Your task to perform on an android device: Open location settings Image 0: 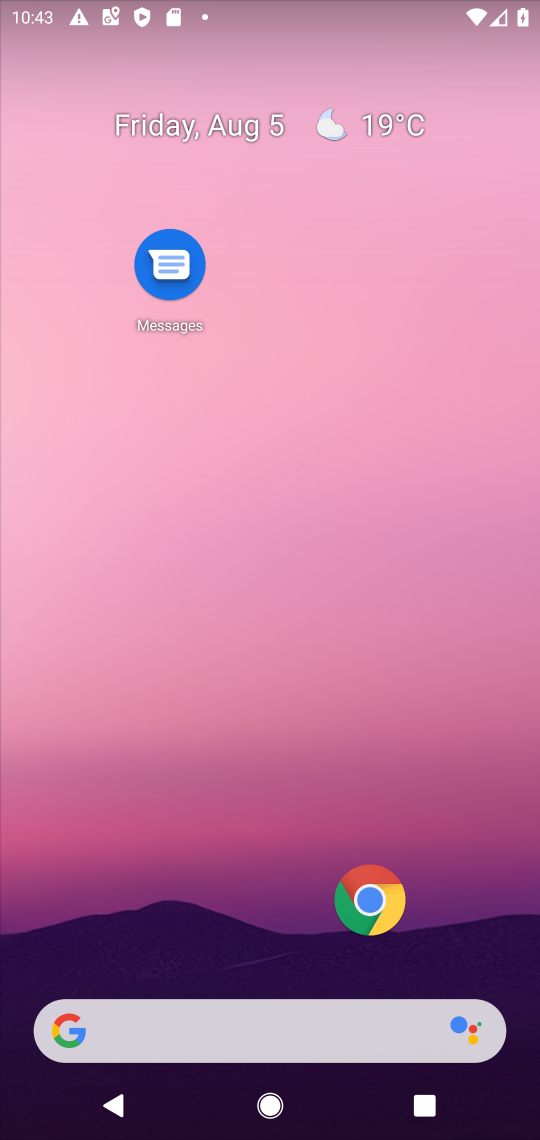
Step 0: press home button
Your task to perform on an android device: Open location settings Image 1: 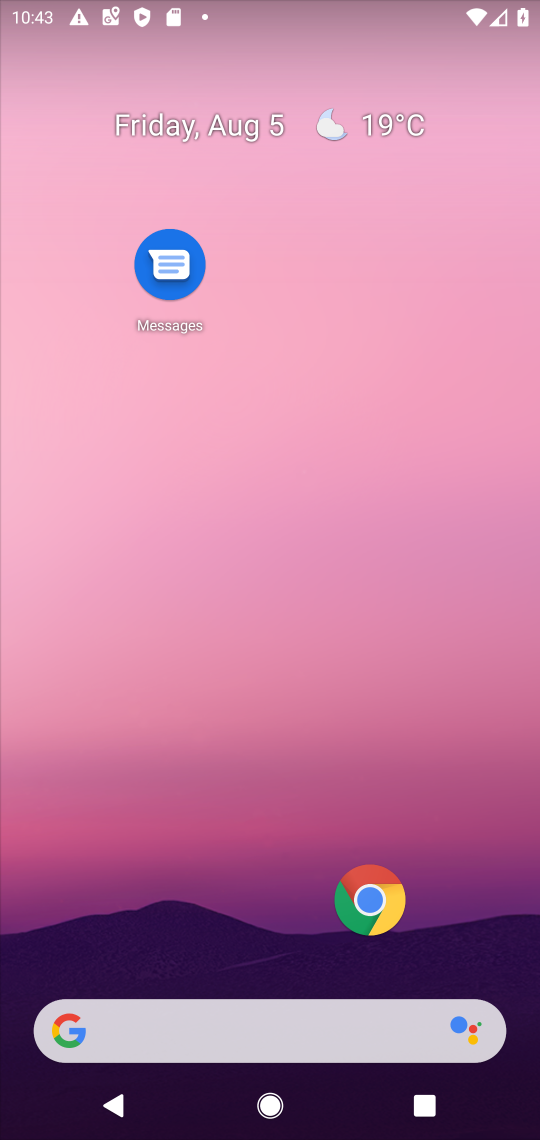
Step 1: drag from (173, 920) to (417, 18)
Your task to perform on an android device: Open location settings Image 2: 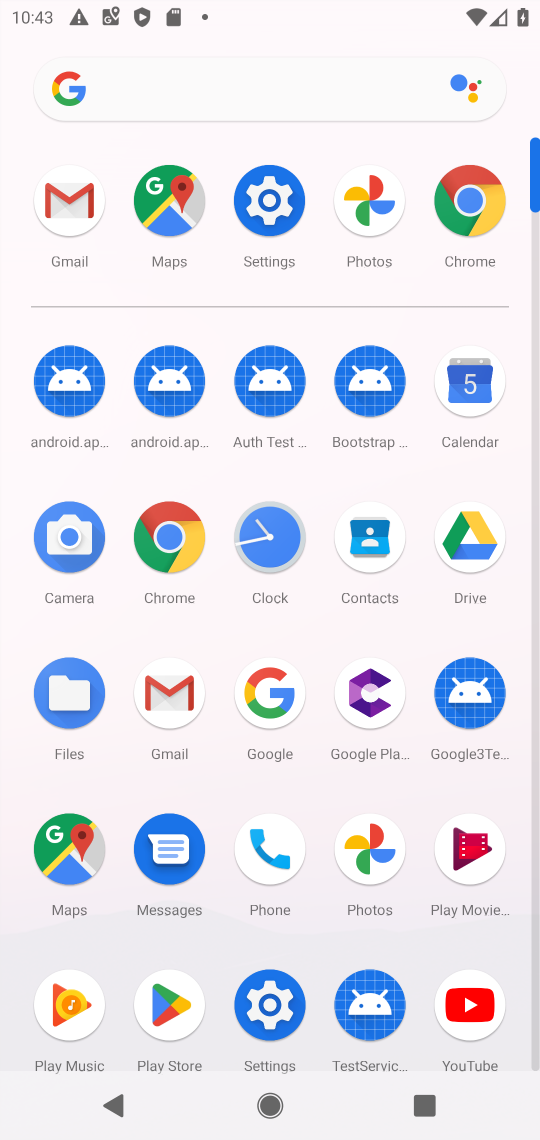
Step 2: click (279, 1010)
Your task to perform on an android device: Open location settings Image 3: 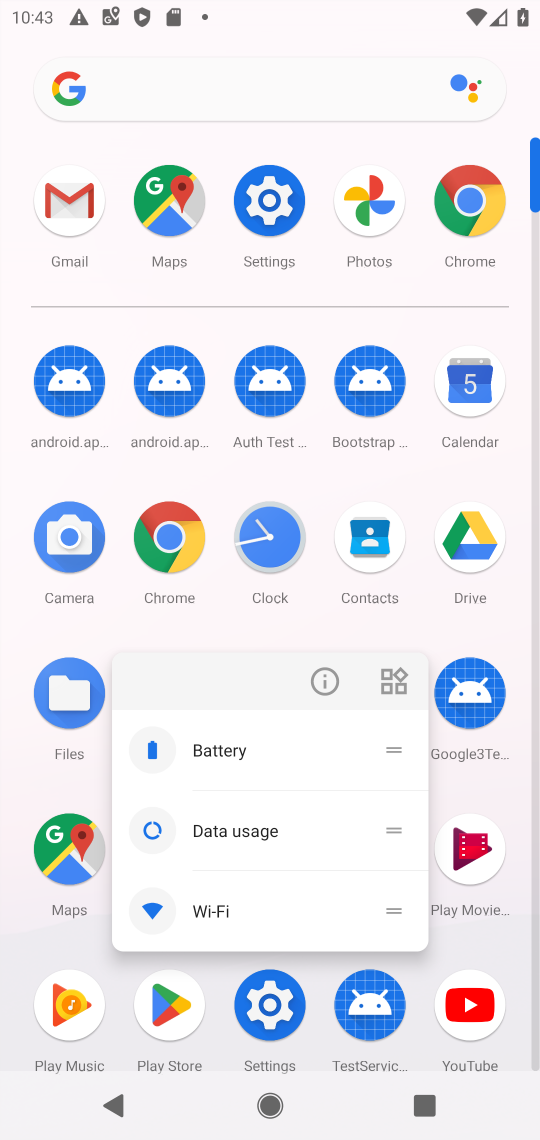
Step 3: click (279, 1010)
Your task to perform on an android device: Open location settings Image 4: 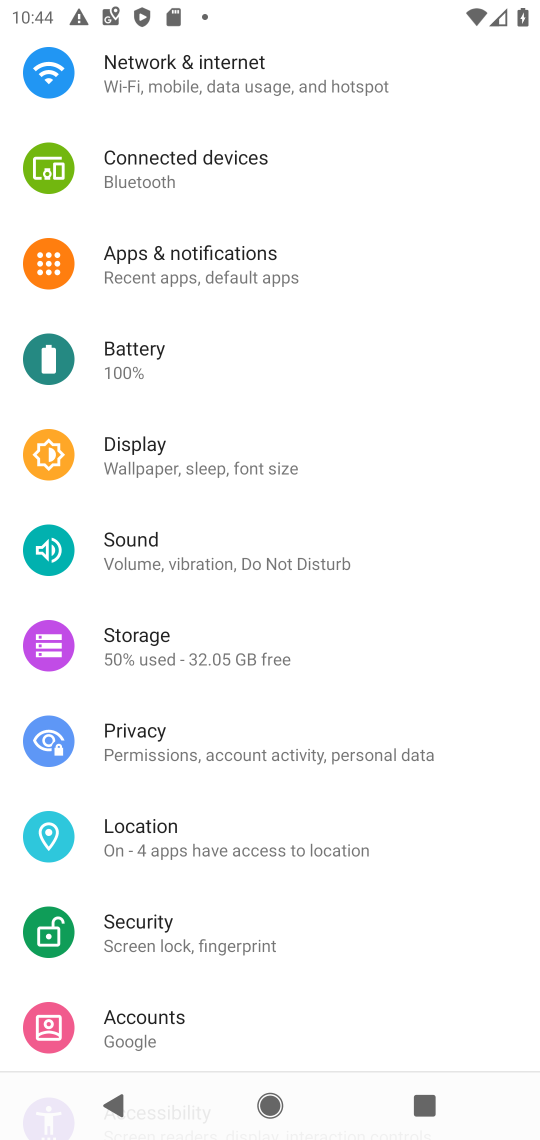
Step 4: click (309, 841)
Your task to perform on an android device: Open location settings Image 5: 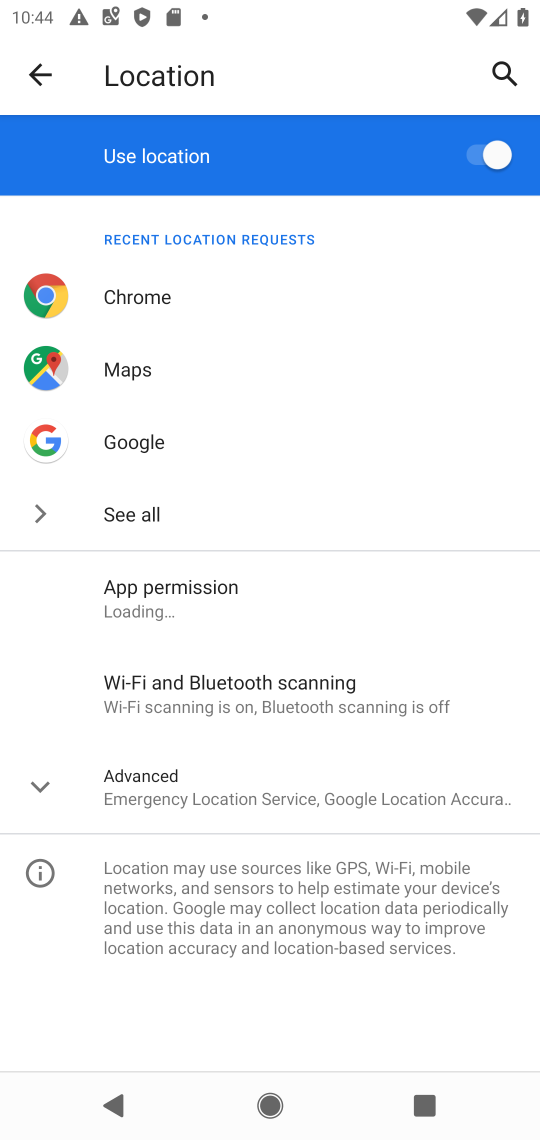
Step 5: task complete